Your task to perform on an android device: Do I have any events today? Image 0: 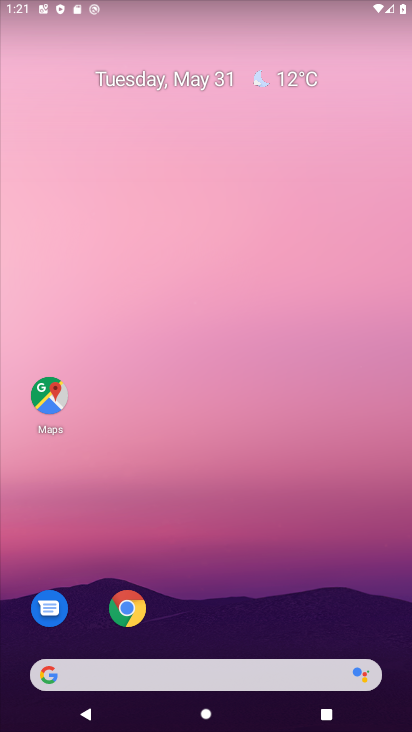
Step 0: drag from (303, 497) to (247, 33)
Your task to perform on an android device: Do I have any events today? Image 1: 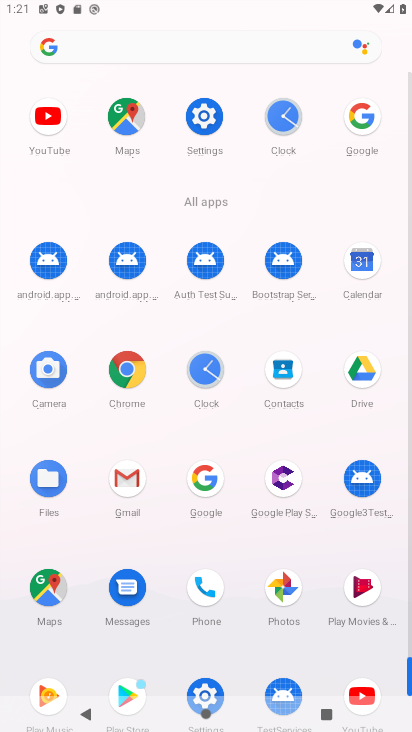
Step 1: click (369, 268)
Your task to perform on an android device: Do I have any events today? Image 2: 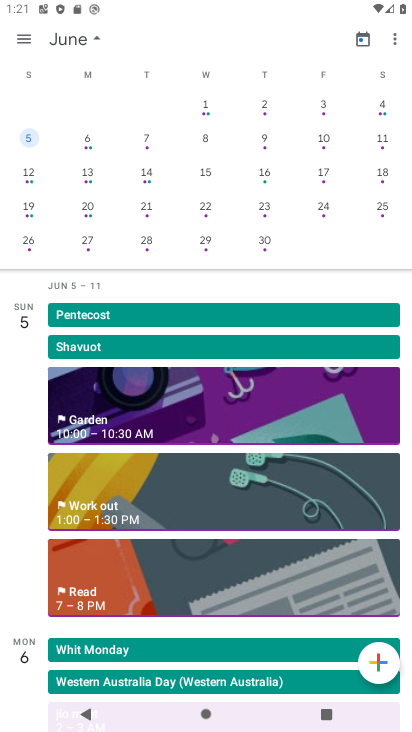
Step 2: drag from (60, 190) to (373, 156)
Your task to perform on an android device: Do I have any events today? Image 3: 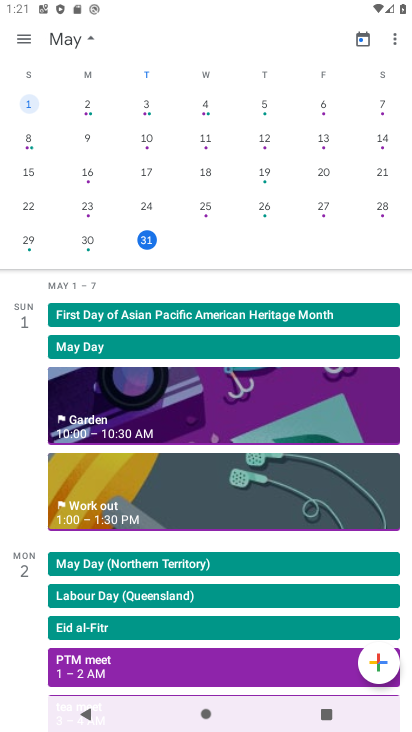
Step 3: drag from (351, 140) to (95, 140)
Your task to perform on an android device: Do I have any events today? Image 4: 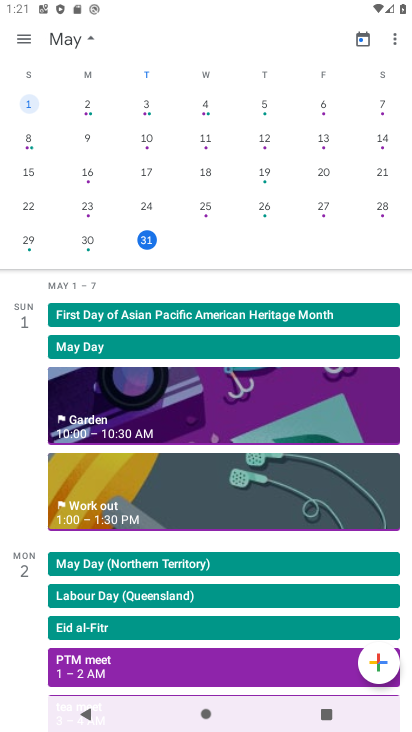
Step 4: click (44, 161)
Your task to perform on an android device: Do I have any events today? Image 5: 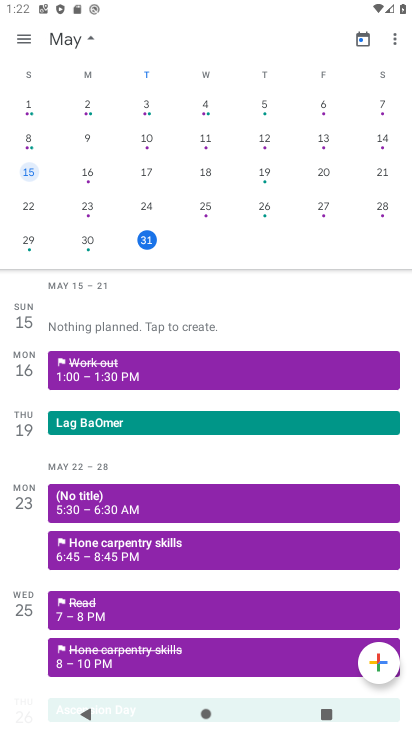
Step 5: task complete